Your task to perform on an android device: What's the latest news in astronomy? Image 0: 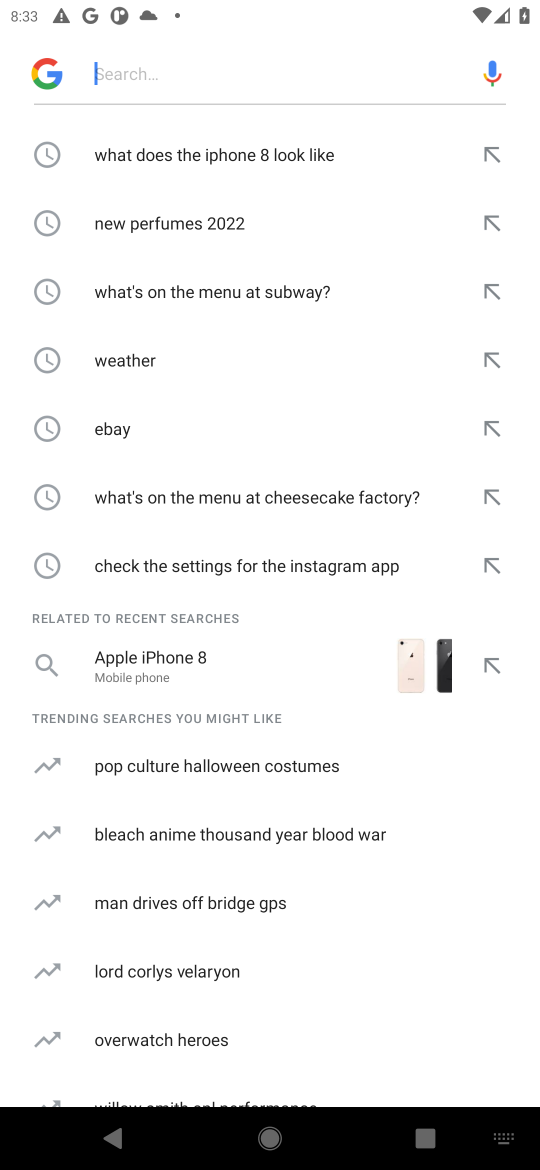
Step 0: type "latest news in astronomy?"
Your task to perform on an android device: What's the latest news in astronomy? Image 1: 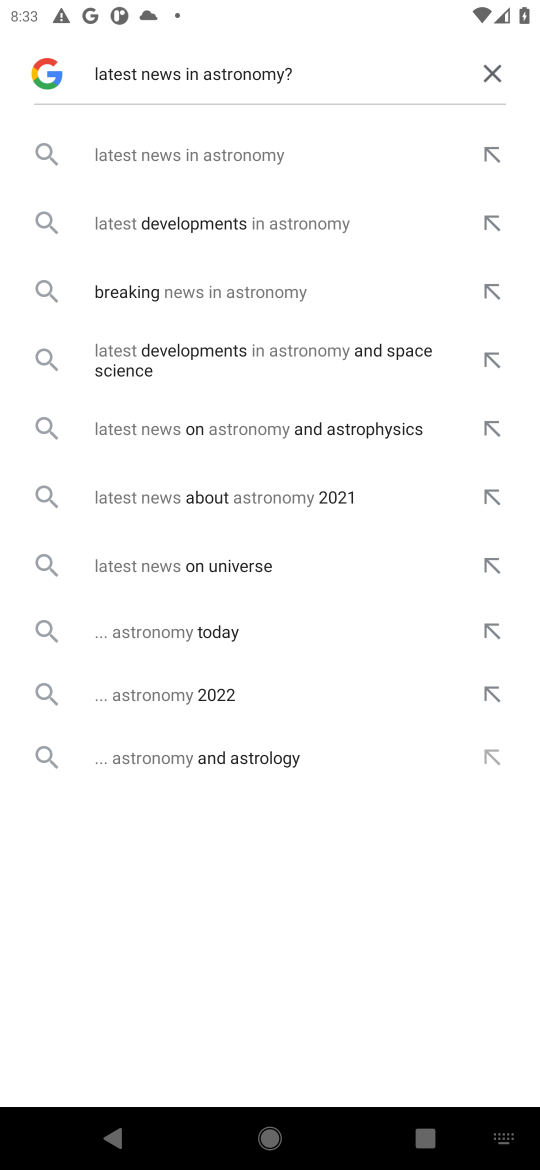
Step 1: click (247, 154)
Your task to perform on an android device: What's the latest news in astronomy? Image 2: 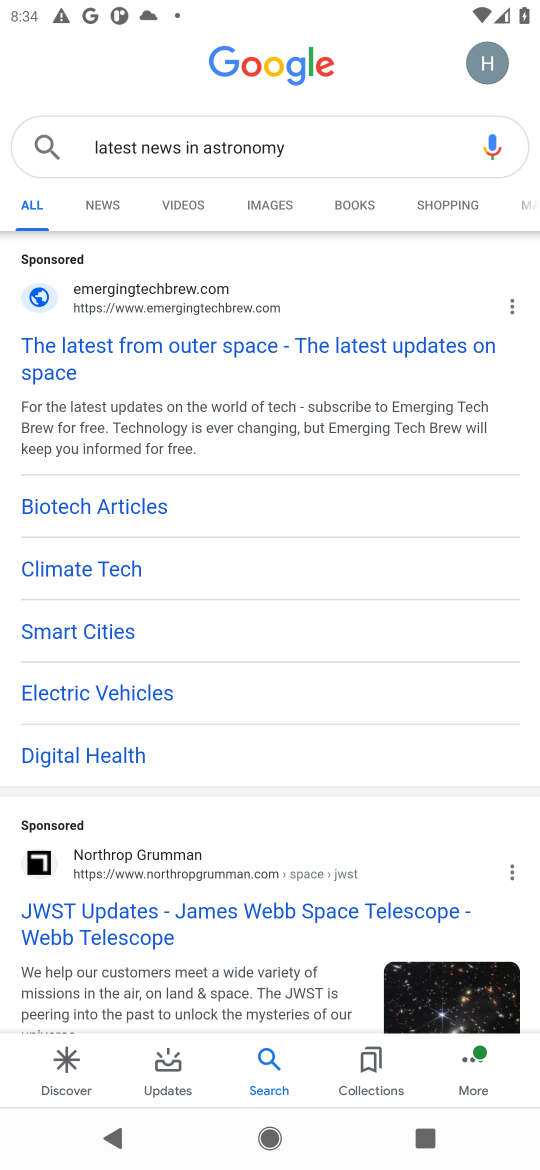
Step 2: click (102, 201)
Your task to perform on an android device: What's the latest news in astronomy? Image 3: 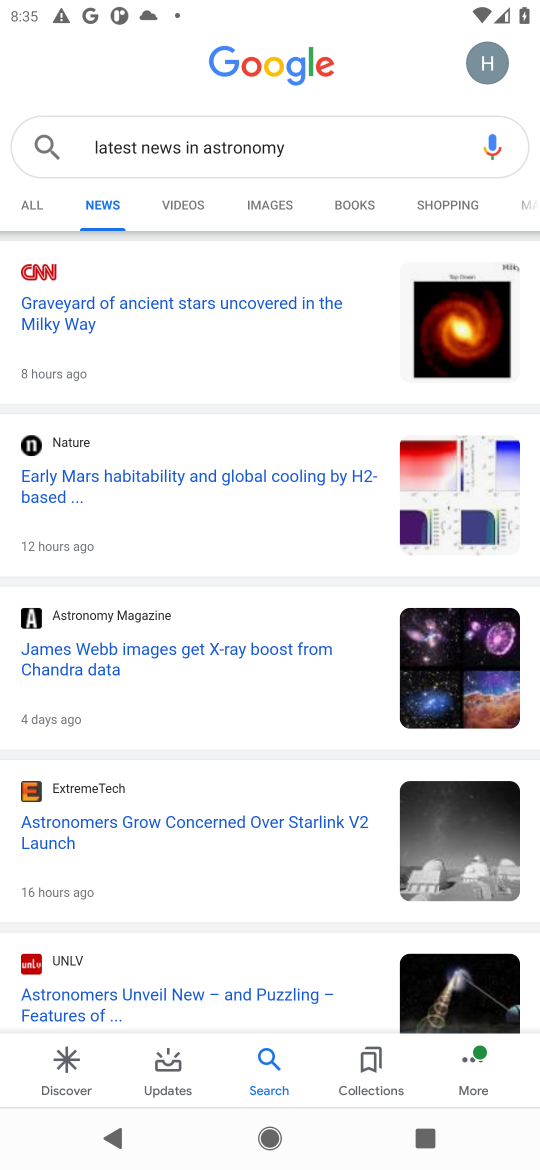
Step 3: task complete